Your task to perform on an android device: open app "Walmart Shopping & Grocery" (install if not already installed) and enter user name: "Hans@icloud.com" and password: "executing" Image 0: 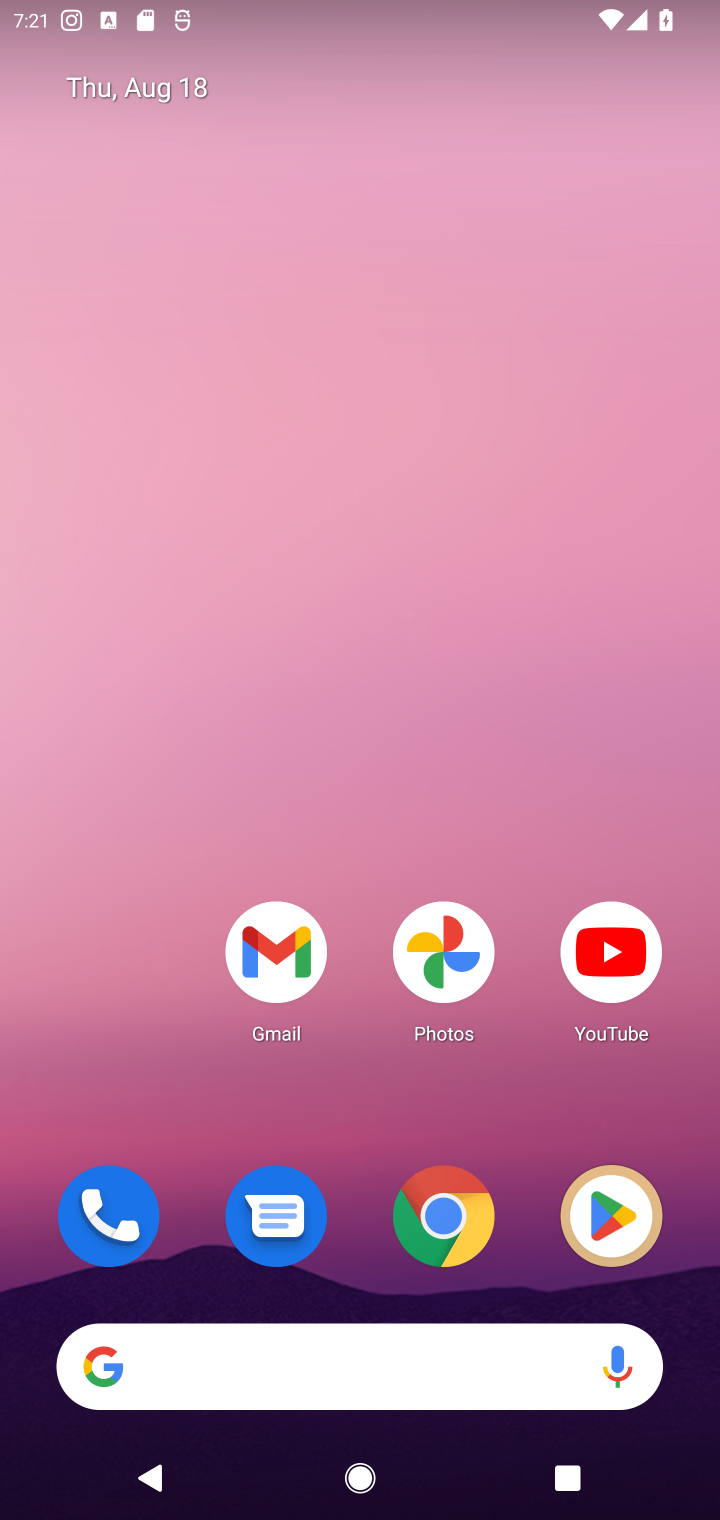
Step 0: click (591, 1180)
Your task to perform on an android device: open app "Walmart Shopping & Grocery" (install if not already installed) and enter user name: "Hans@icloud.com" and password: "executing" Image 1: 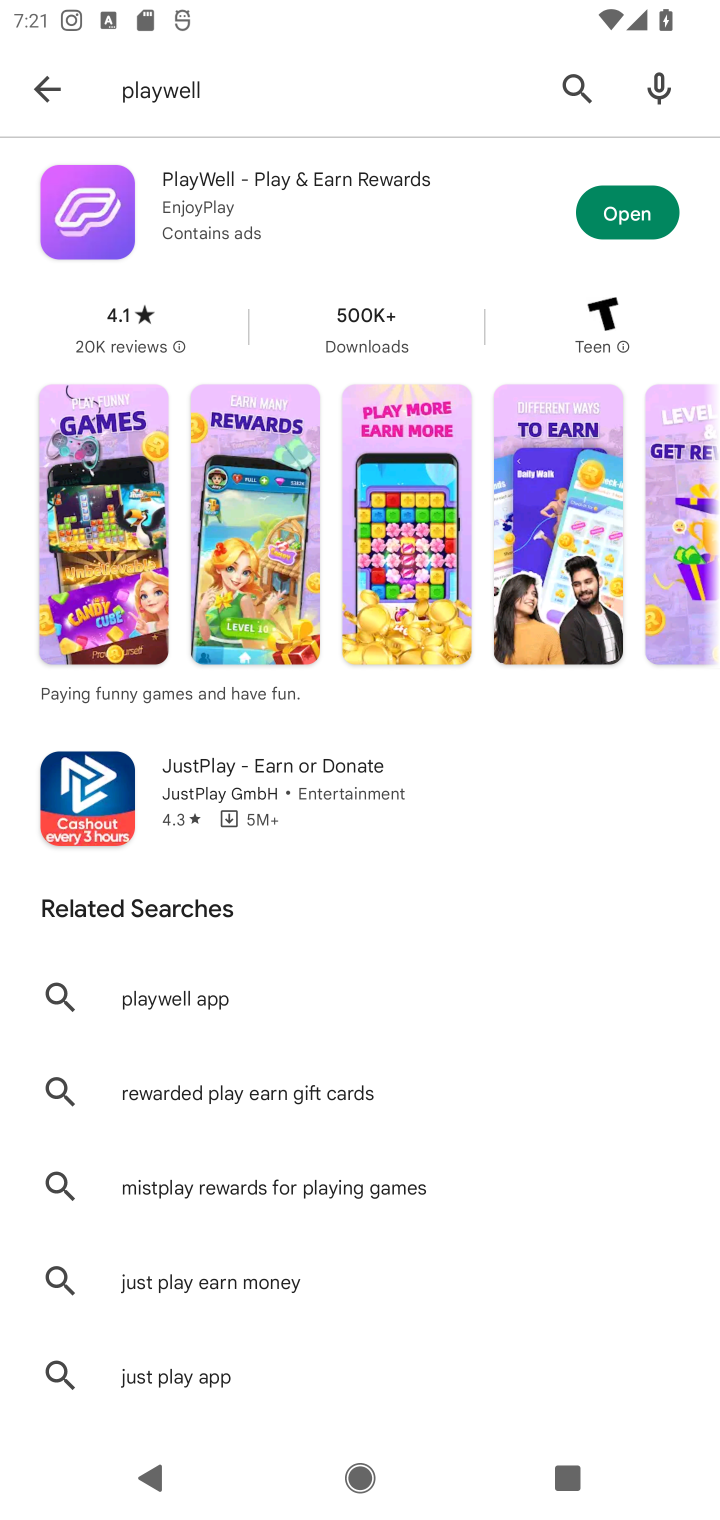
Step 1: click (566, 92)
Your task to perform on an android device: open app "Walmart Shopping & Grocery" (install if not already installed) and enter user name: "Hans@icloud.com" and password: "executing" Image 2: 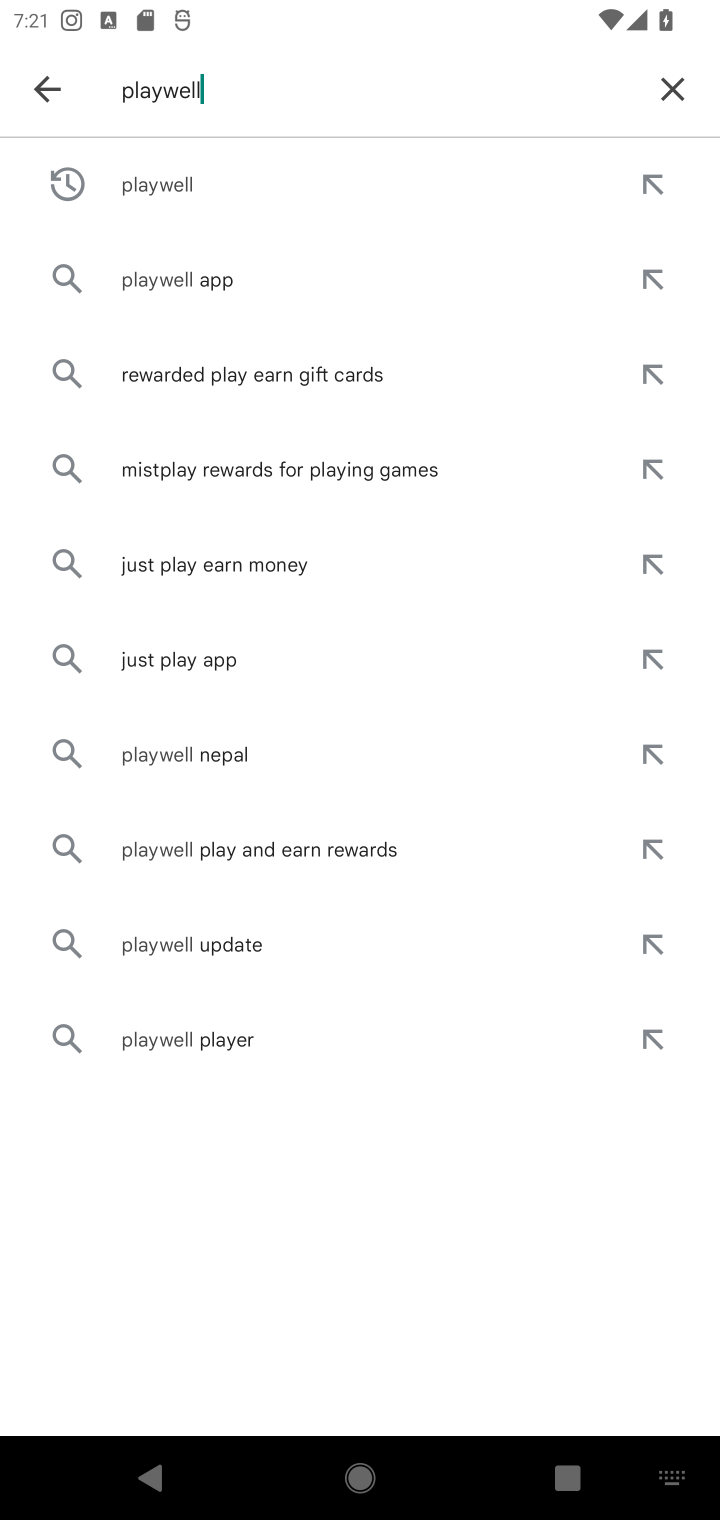
Step 2: click (659, 81)
Your task to perform on an android device: open app "Walmart Shopping & Grocery" (install if not already installed) and enter user name: "Hans@icloud.com" and password: "executing" Image 3: 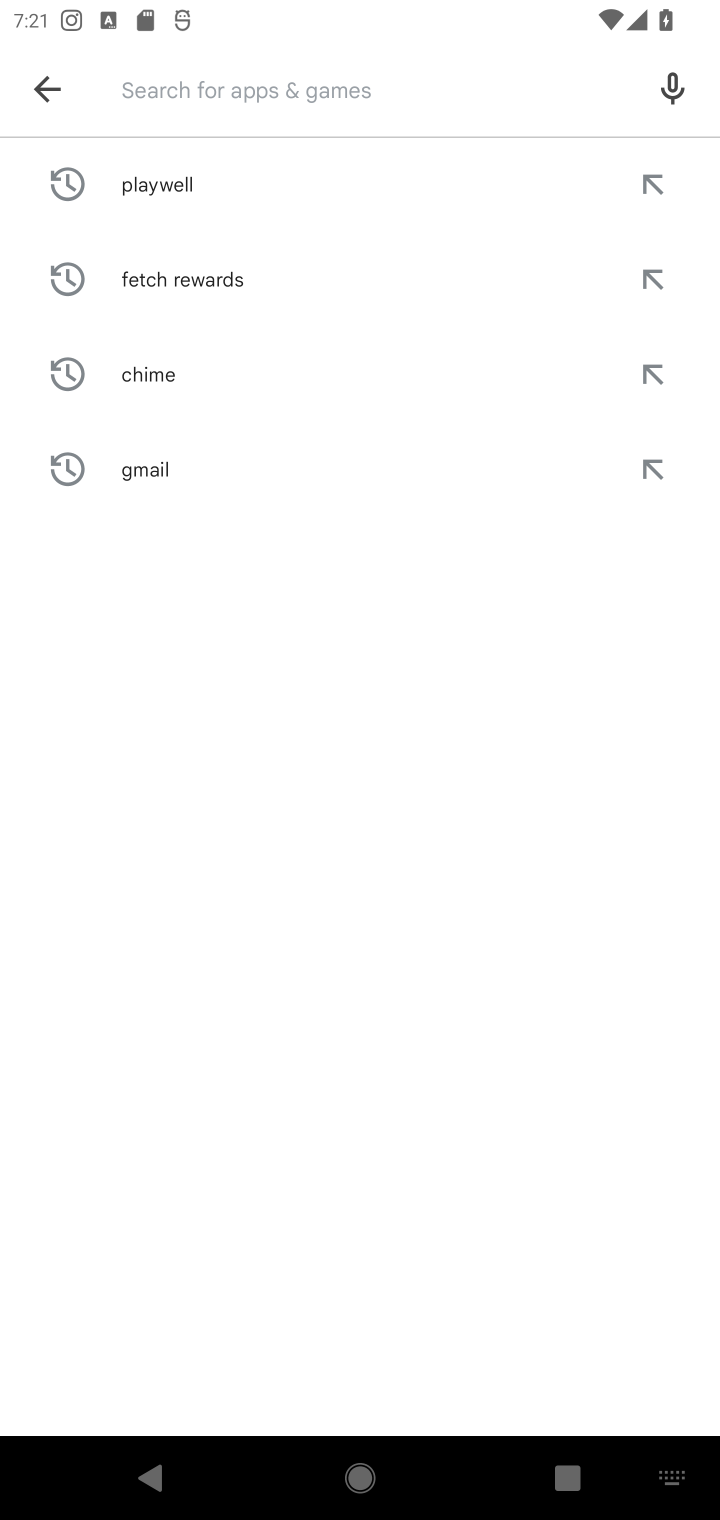
Step 3: type "Walmart Shopping & Grocery"
Your task to perform on an android device: open app "Walmart Shopping & Grocery" (install if not already installed) and enter user name: "Hans@icloud.com" and password: "executing" Image 4: 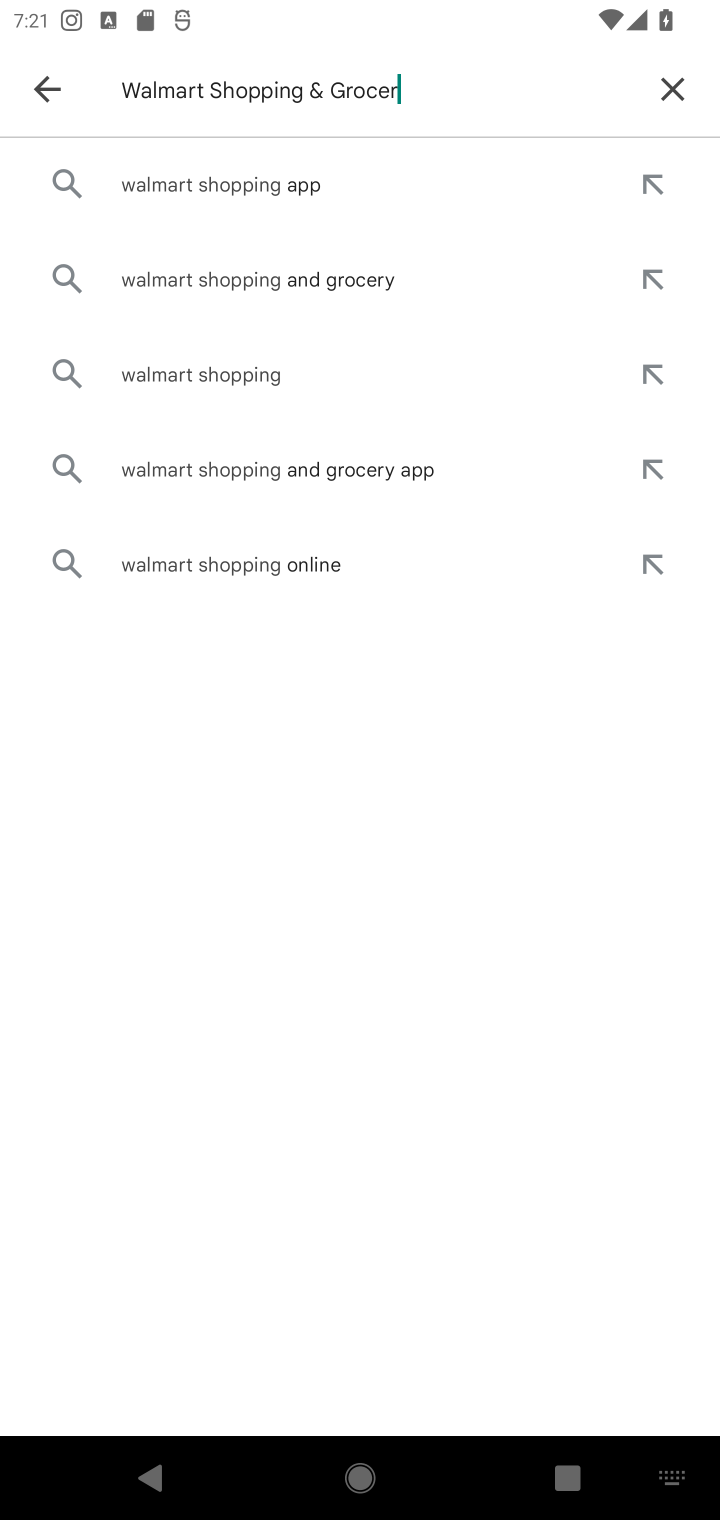
Step 4: type ""
Your task to perform on an android device: open app "Walmart Shopping & Grocery" (install if not already installed) and enter user name: "Hans@icloud.com" and password: "executing" Image 5: 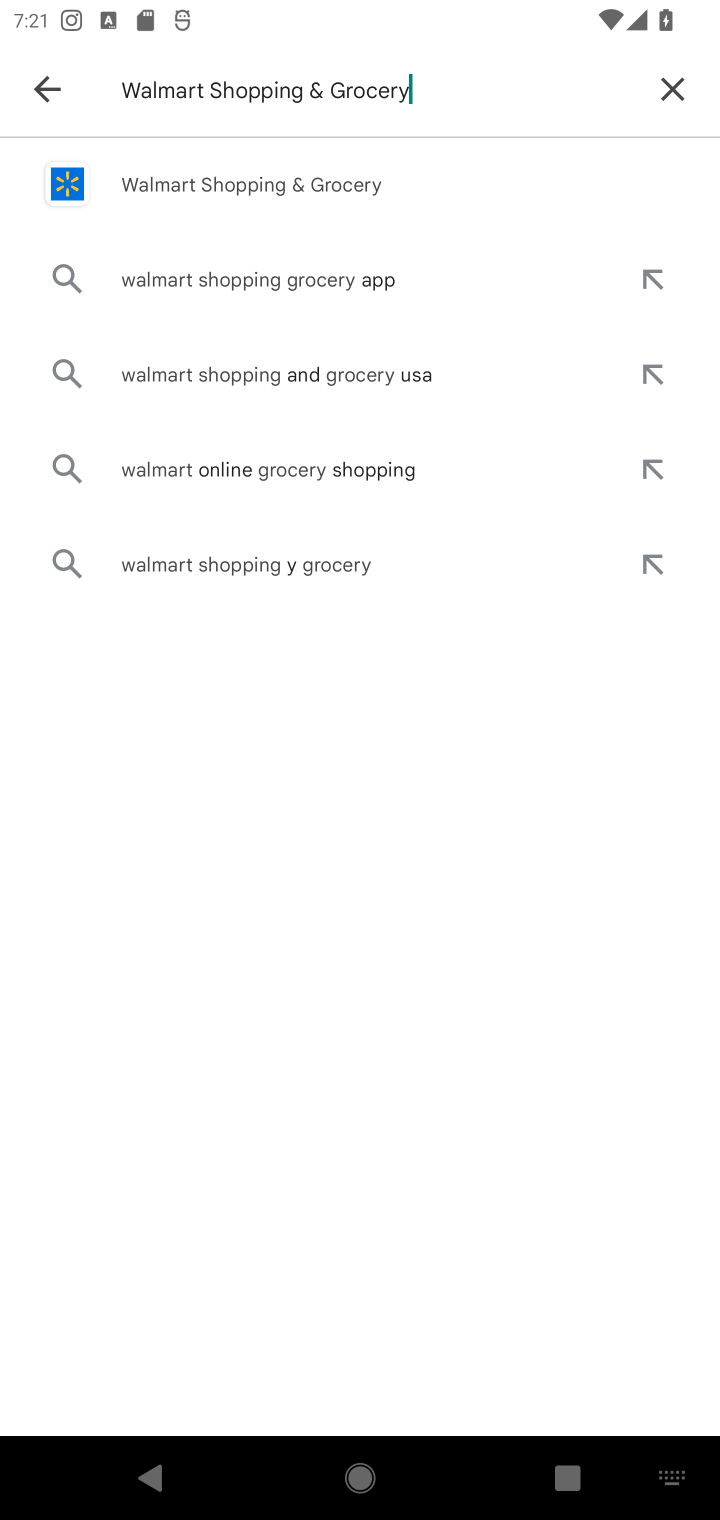
Step 5: click (313, 206)
Your task to perform on an android device: open app "Walmart Shopping & Grocery" (install if not already installed) and enter user name: "Hans@icloud.com" and password: "executing" Image 6: 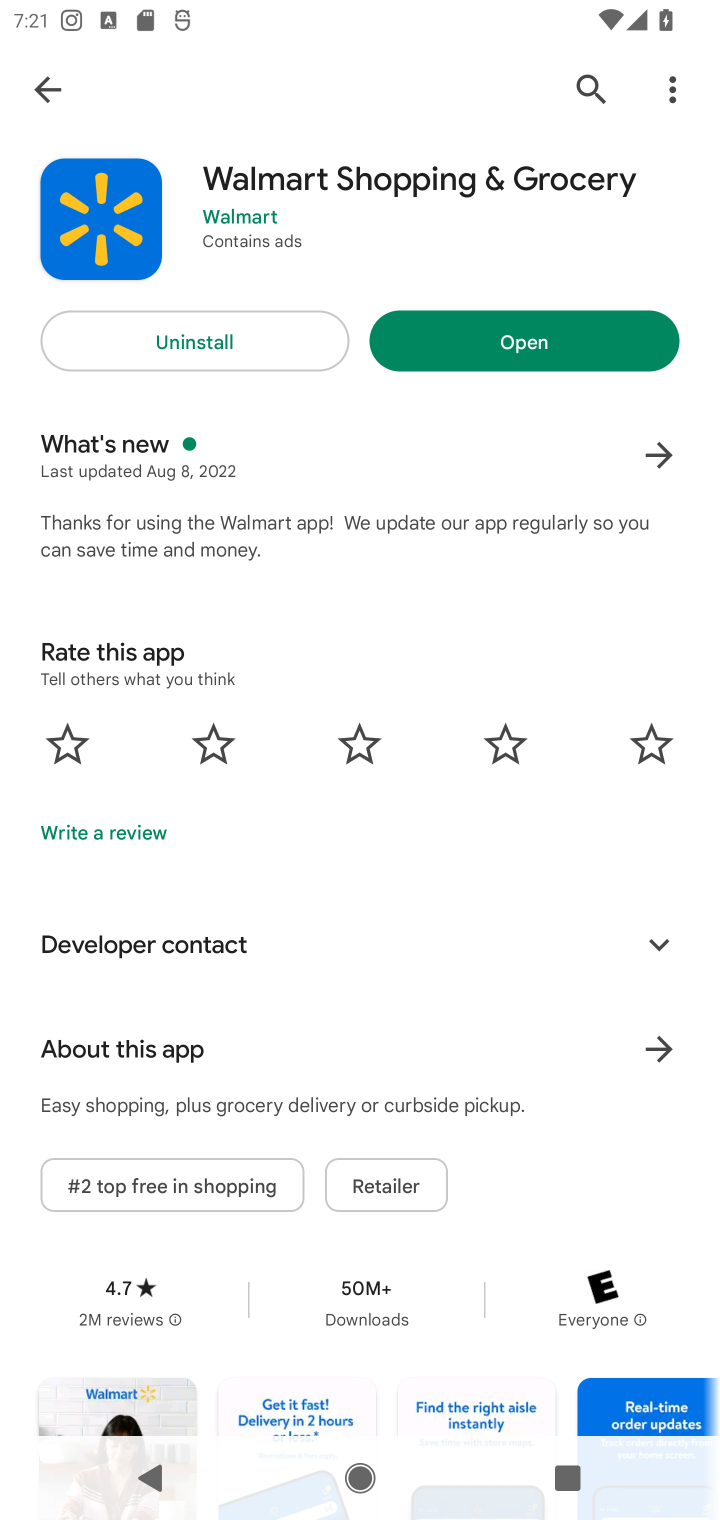
Step 6: click (454, 325)
Your task to perform on an android device: open app "Walmart Shopping & Grocery" (install if not already installed) and enter user name: "Hans@icloud.com" and password: "executing" Image 7: 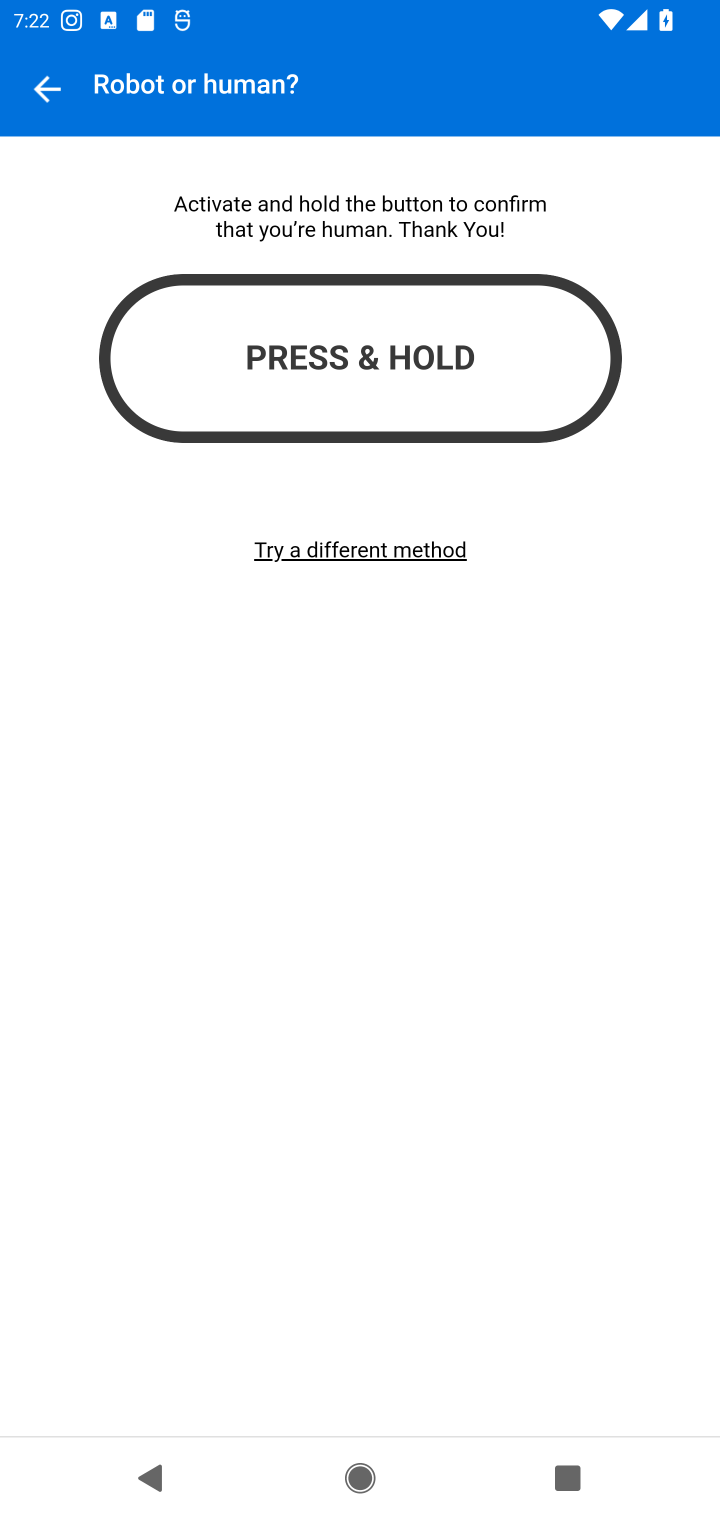
Step 7: press home button
Your task to perform on an android device: open app "Walmart Shopping & Grocery" (install if not already installed) and enter user name: "Hans@icloud.com" and password: "executing" Image 8: 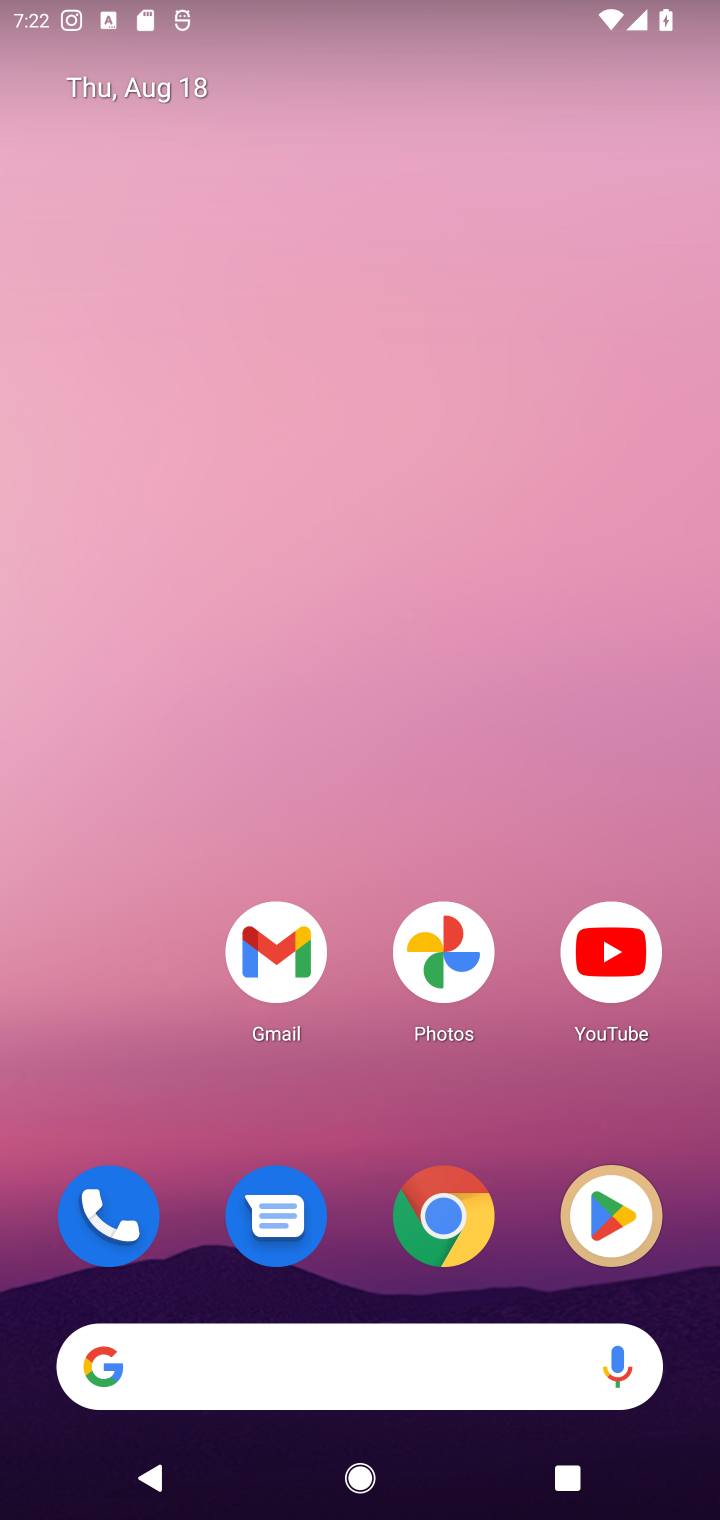
Step 8: click (592, 1249)
Your task to perform on an android device: open app "Walmart Shopping & Grocery" (install if not already installed) and enter user name: "Hans@icloud.com" and password: "executing" Image 9: 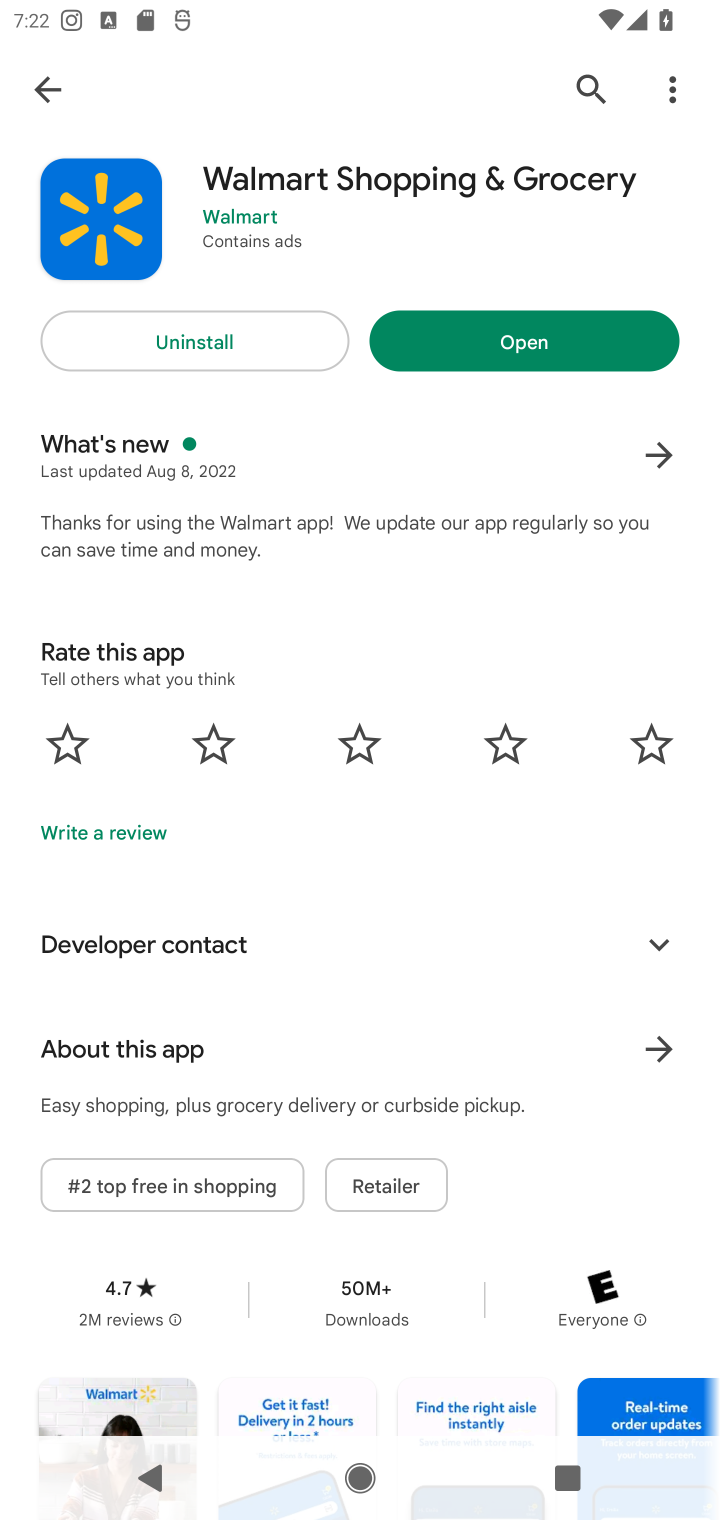
Step 9: click (544, 321)
Your task to perform on an android device: open app "Walmart Shopping & Grocery" (install if not already installed) and enter user name: "Hans@icloud.com" and password: "executing" Image 10: 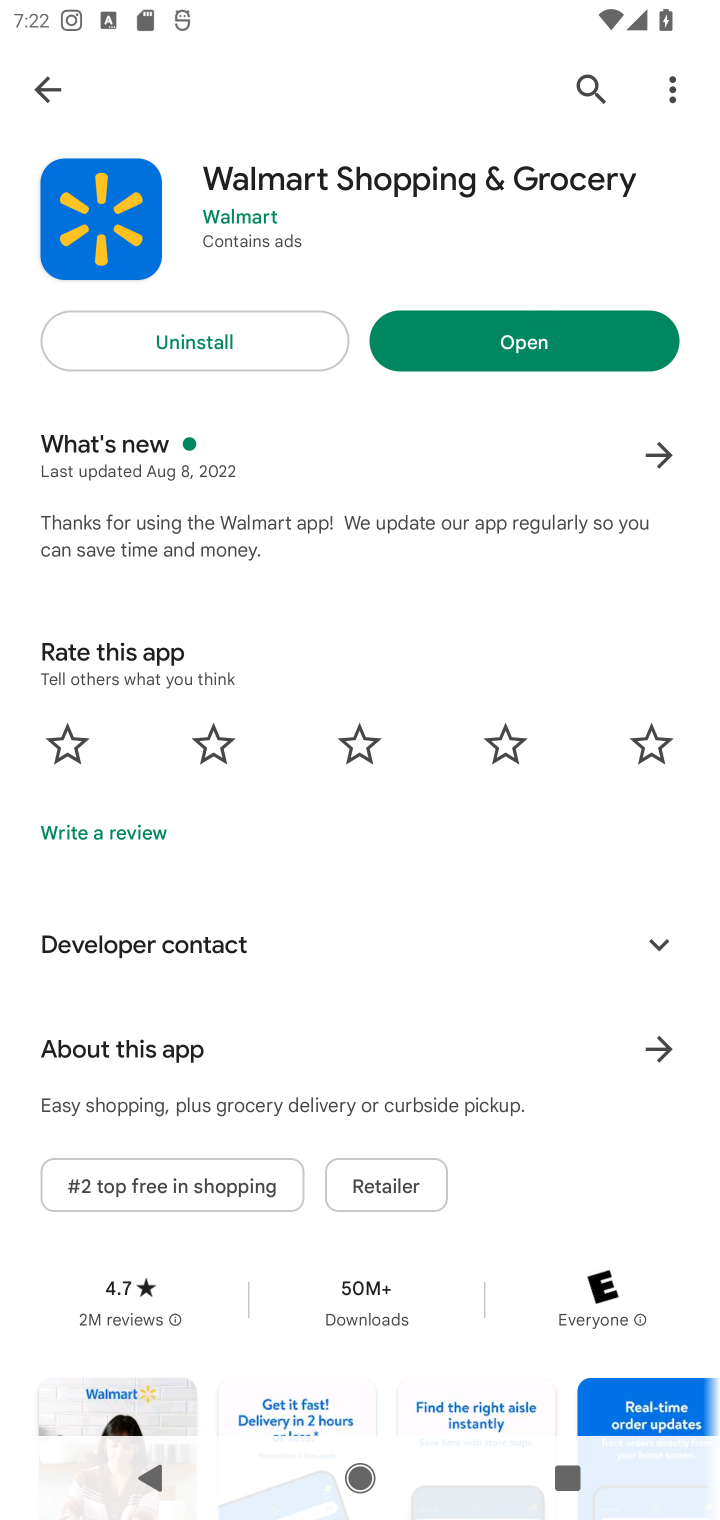
Step 10: task complete